Your task to perform on an android device: Go to privacy settings Image 0: 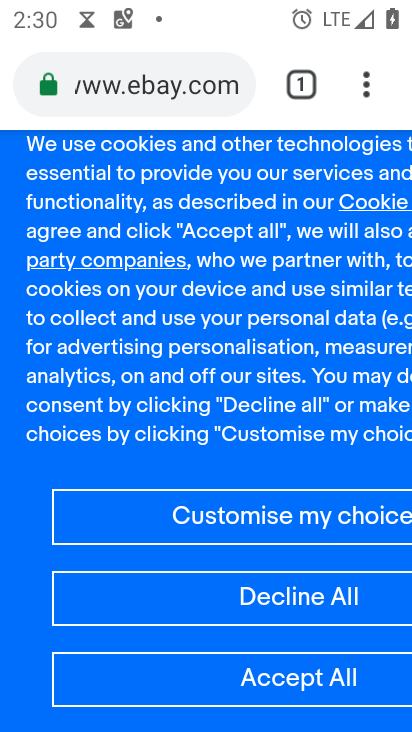
Step 0: press home button
Your task to perform on an android device: Go to privacy settings Image 1: 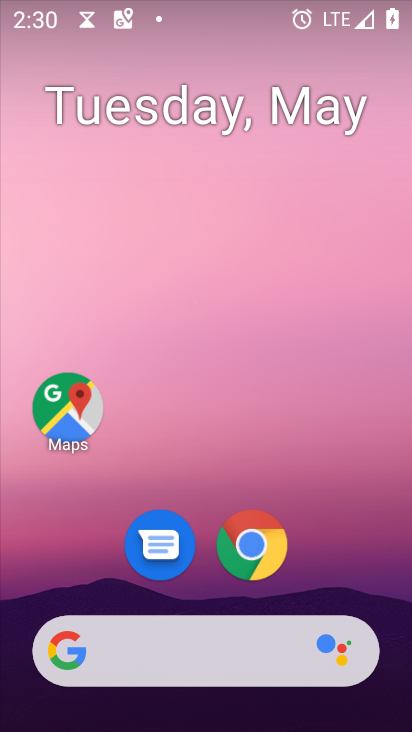
Step 1: drag from (317, 521) to (281, 0)
Your task to perform on an android device: Go to privacy settings Image 2: 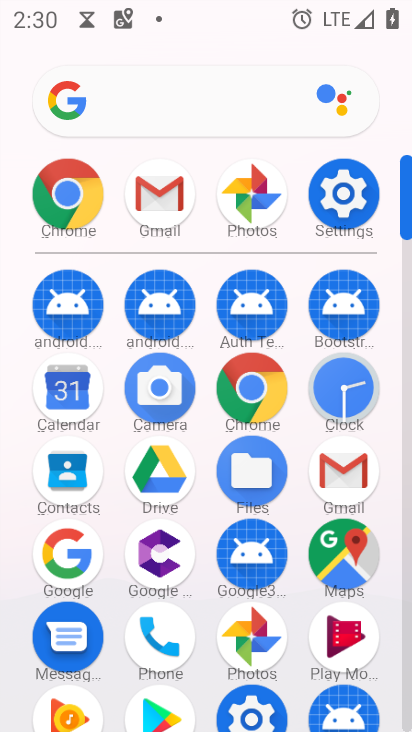
Step 2: click (339, 189)
Your task to perform on an android device: Go to privacy settings Image 3: 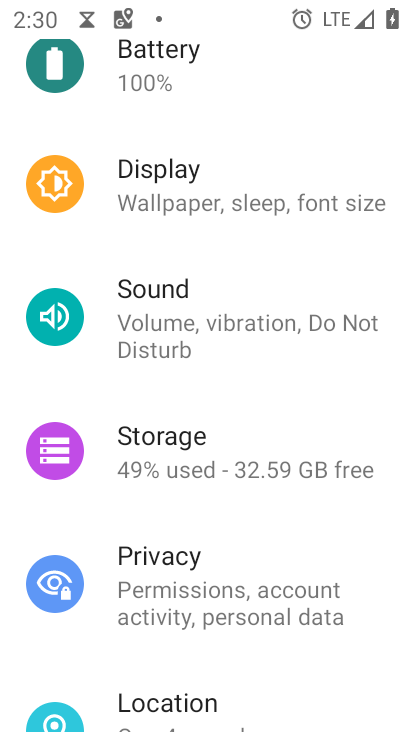
Step 3: click (191, 552)
Your task to perform on an android device: Go to privacy settings Image 4: 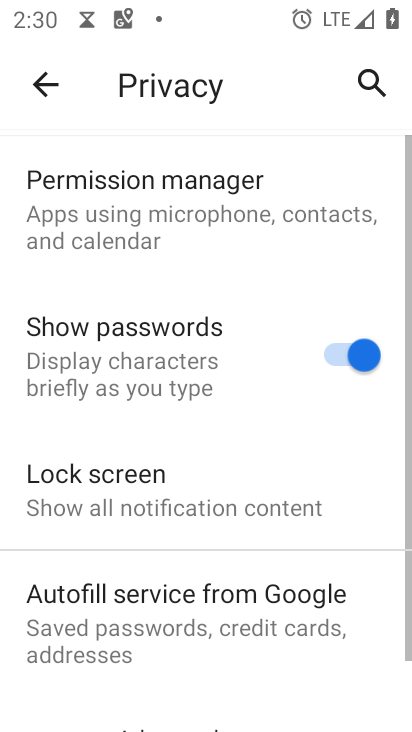
Step 4: drag from (223, 544) to (221, 166)
Your task to perform on an android device: Go to privacy settings Image 5: 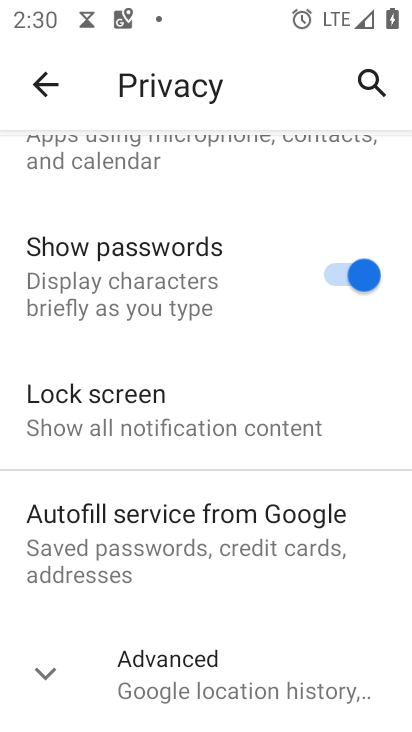
Step 5: click (38, 663)
Your task to perform on an android device: Go to privacy settings Image 6: 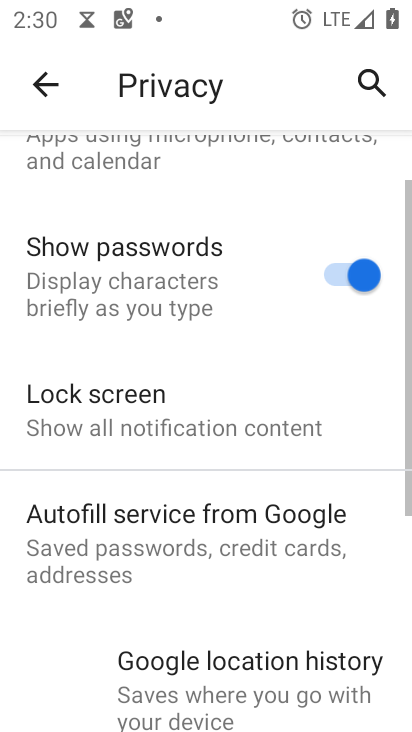
Step 6: task complete